Your task to perform on an android device: find photos in the google photos app Image 0: 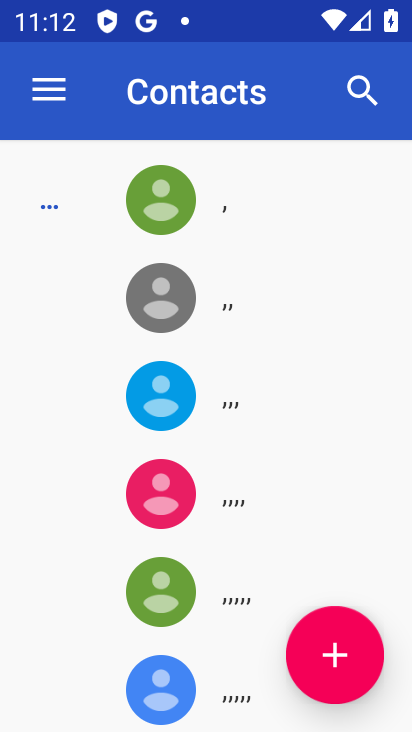
Step 0: press home button
Your task to perform on an android device: find photos in the google photos app Image 1: 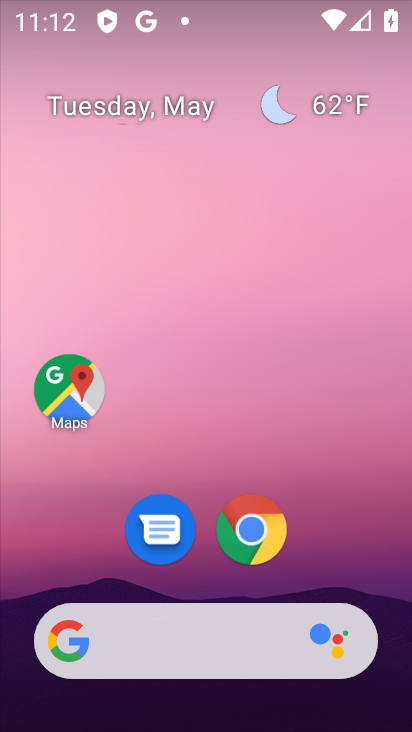
Step 1: drag from (132, 717) to (228, 127)
Your task to perform on an android device: find photos in the google photos app Image 2: 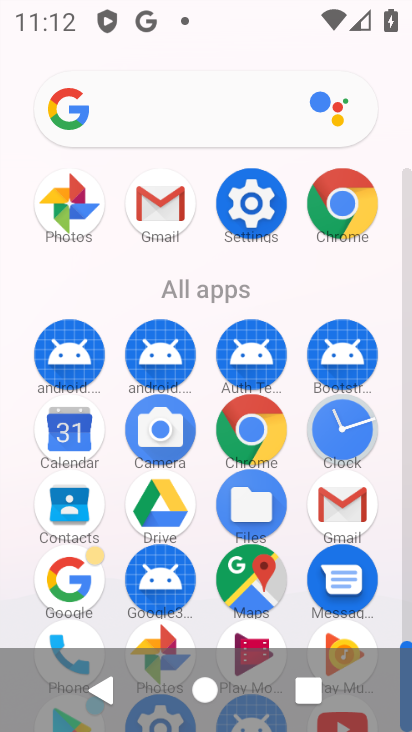
Step 2: click (69, 228)
Your task to perform on an android device: find photos in the google photos app Image 3: 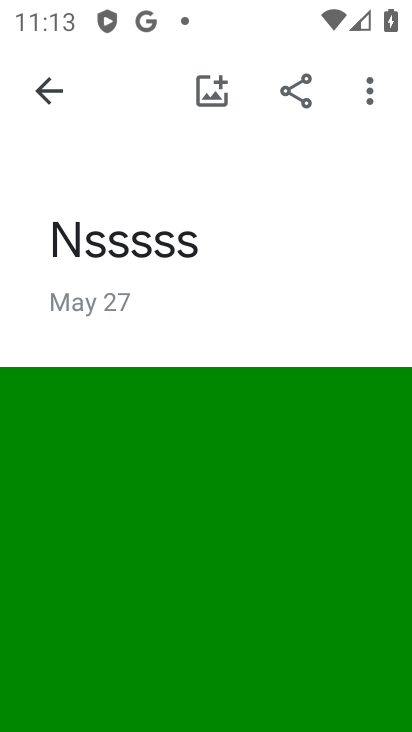
Step 3: click (300, 560)
Your task to perform on an android device: find photos in the google photos app Image 4: 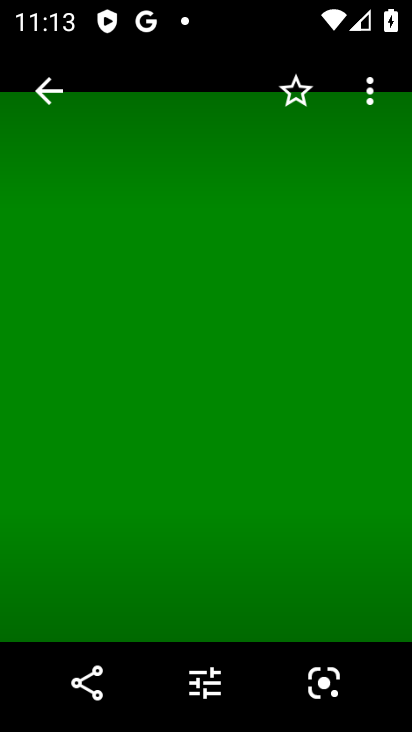
Step 4: task complete